Your task to perform on an android device: check out phone information Image 0: 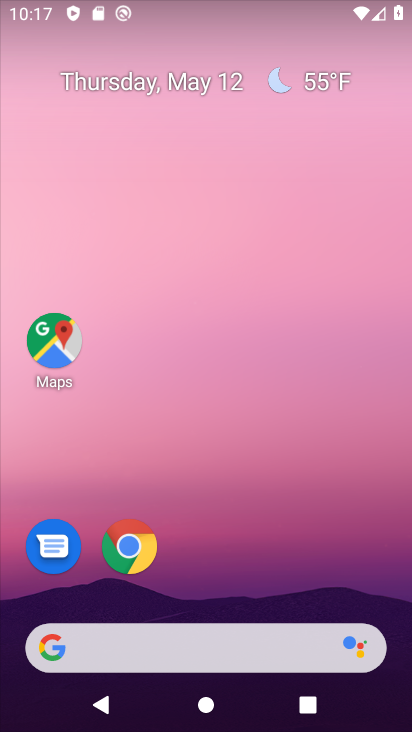
Step 0: drag from (253, 546) to (252, 125)
Your task to perform on an android device: check out phone information Image 1: 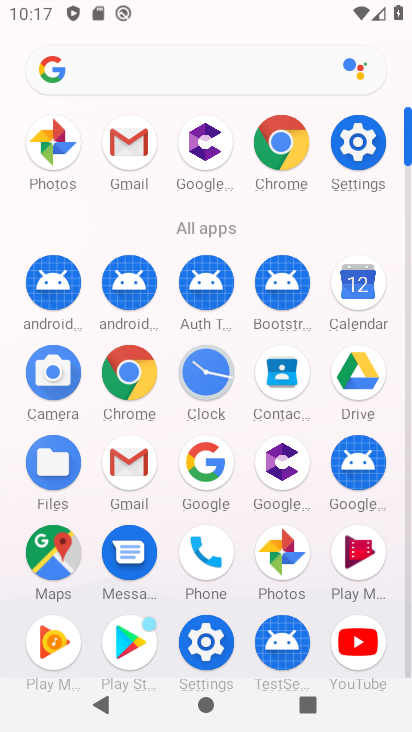
Step 1: click (204, 644)
Your task to perform on an android device: check out phone information Image 2: 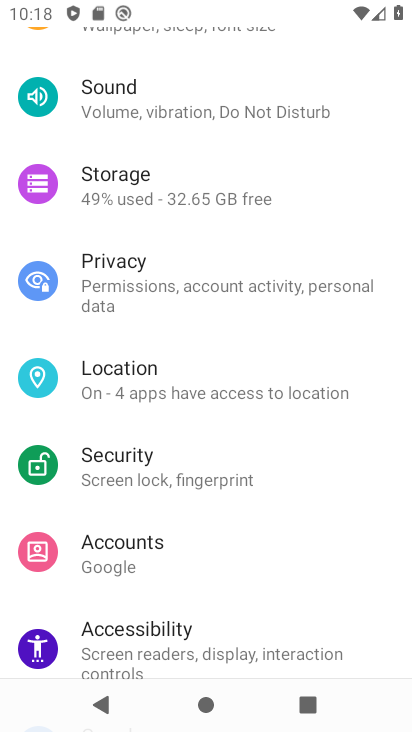
Step 2: drag from (204, 637) to (160, 172)
Your task to perform on an android device: check out phone information Image 3: 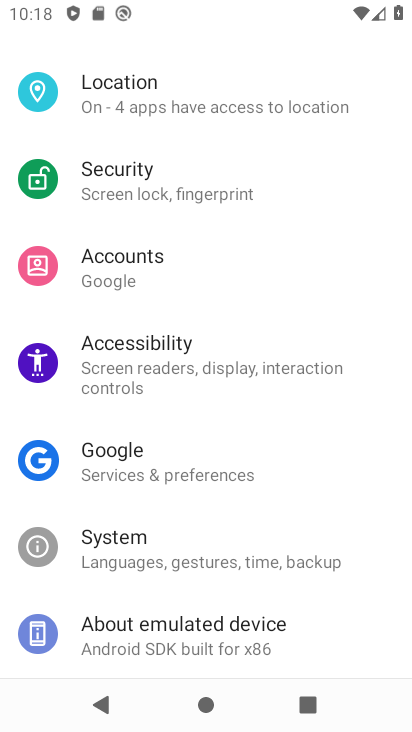
Step 3: drag from (199, 590) to (179, 263)
Your task to perform on an android device: check out phone information Image 4: 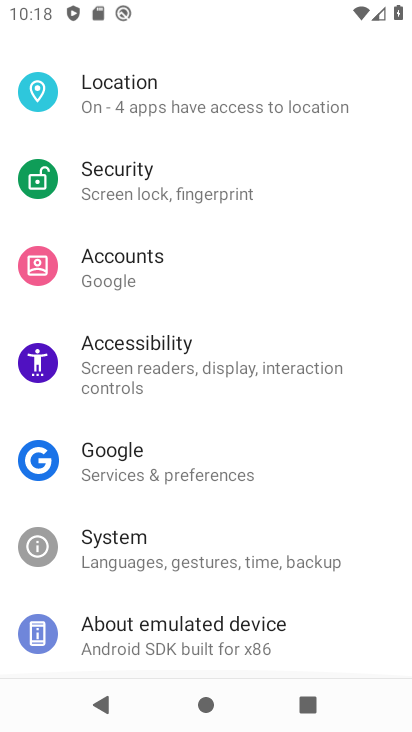
Step 4: click (149, 646)
Your task to perform on an android device: check out phone information Image 5: 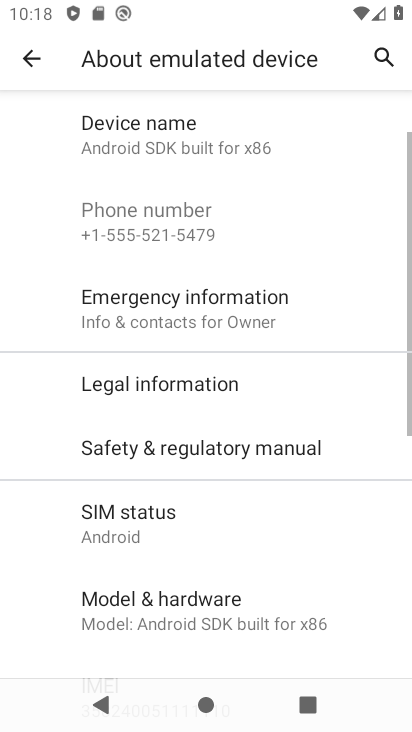
Step 5: task complete